Your task to perform on an android device: Add alienware aurora to the cart on walmart, then select checkout. Image 0: 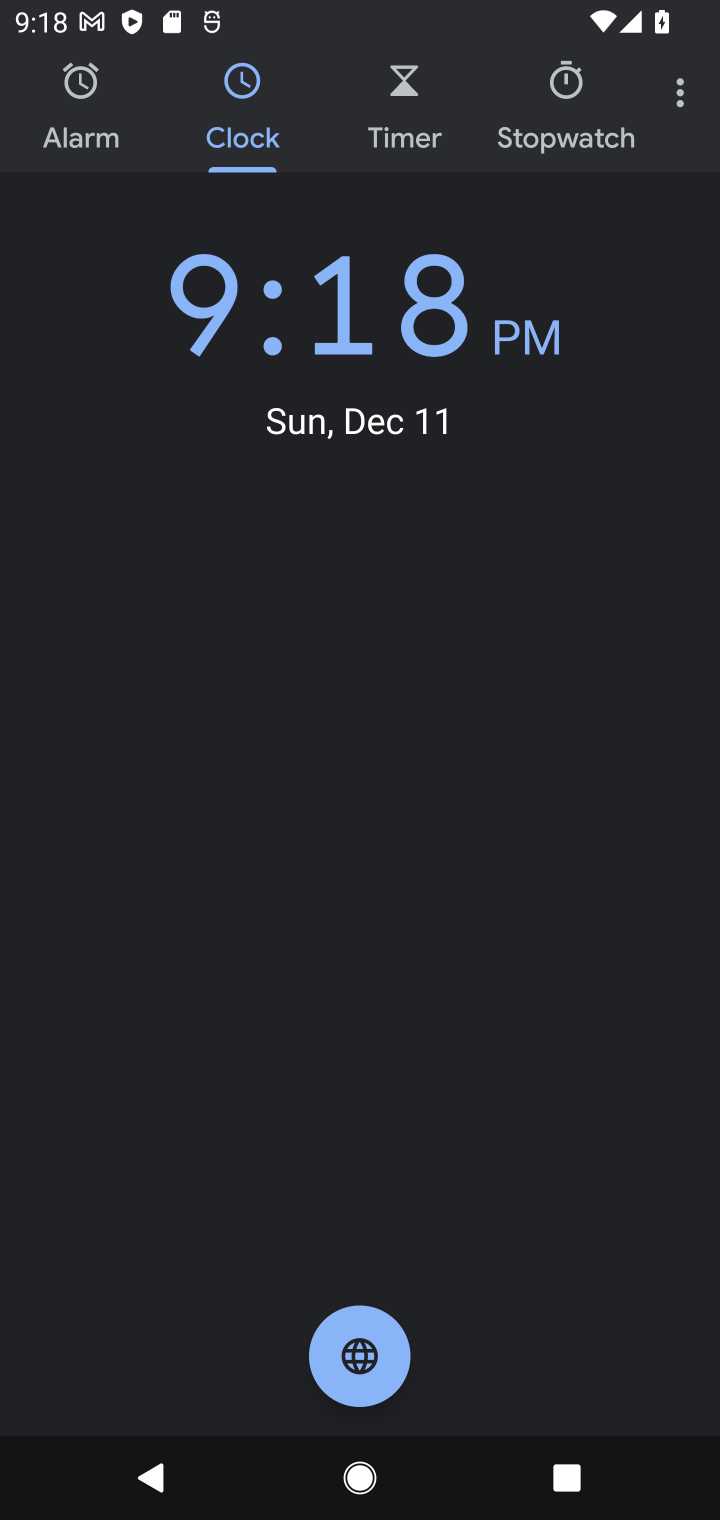
Step 0: press home button
Your task to perform on an android device: Add alienware aurora to the cart on walmart, then select checkout. Image 1: 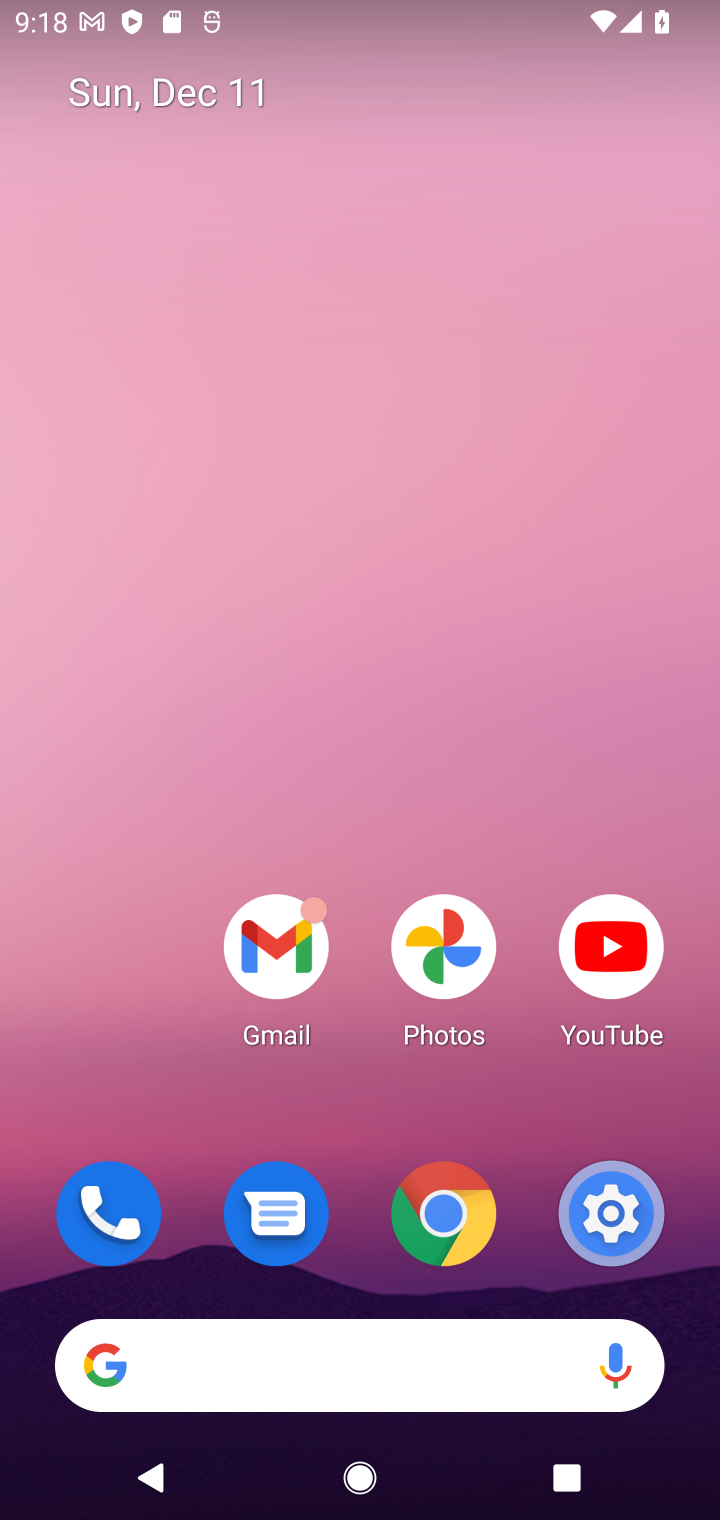
Step 1: click (333, 1371)
Your task to perform on an android device: Add alienware aurora to the cart on walmart, then select checkout. Image 2: 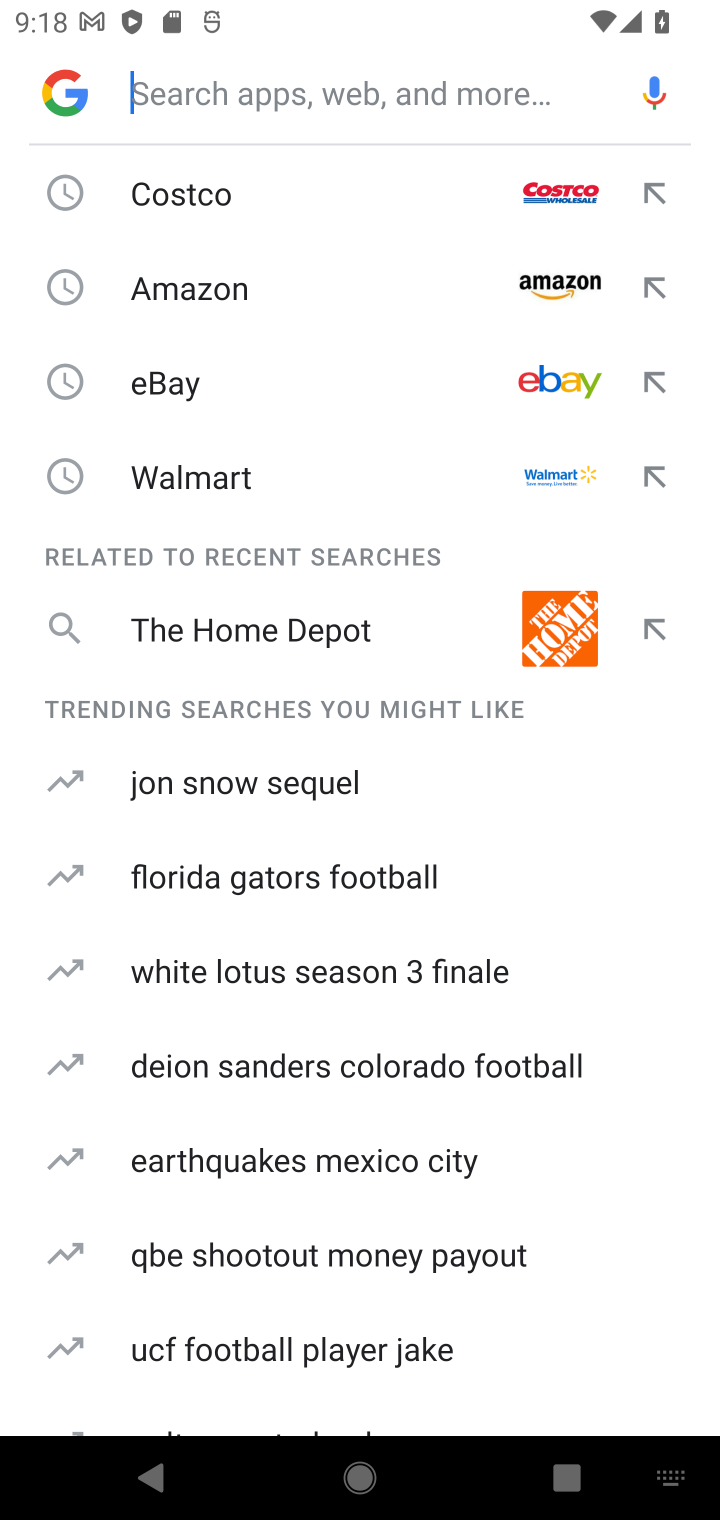
Step 2: type "walmart"
Your task to perform on an android device: Add alienware aurora to the cart on walmart, then select checkout. Image 3: 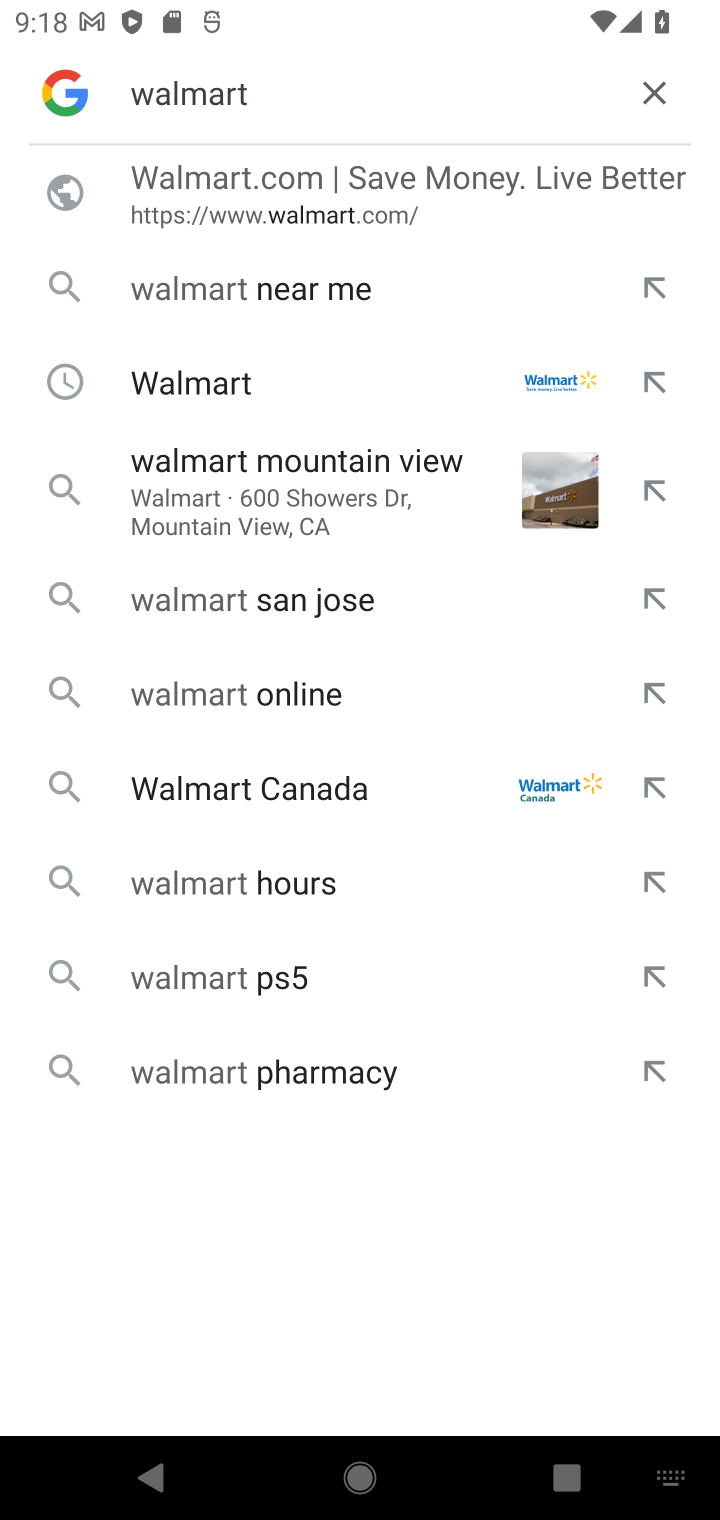
Step 3: click (350, 218)
Your task to perform on an android device: Add alienware aurora to the cart on walmart, then select checkout. Image 4: 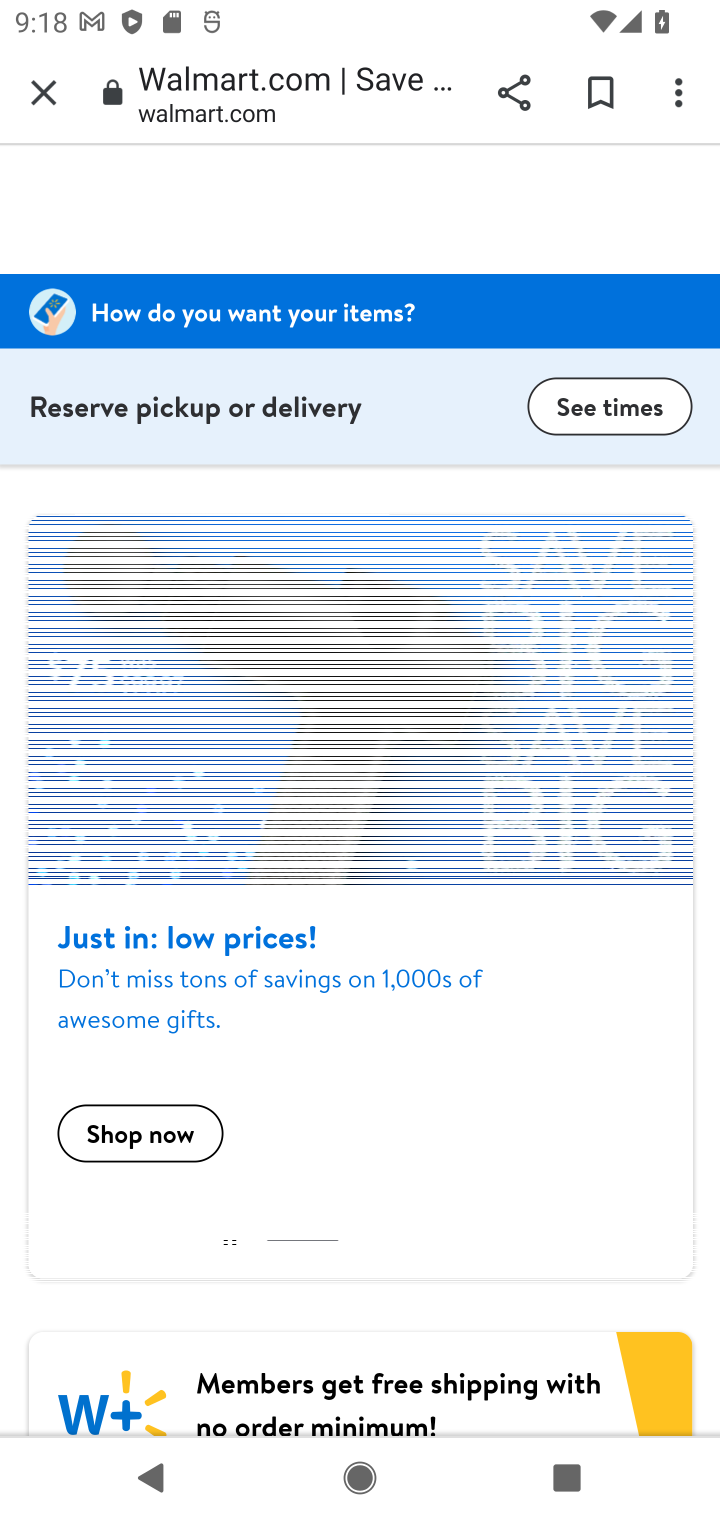
Step 4: click (330, 182)
Your task to perform on an android device: Add alienware aurora to the cart on walmart, then select checkout. Image 5: 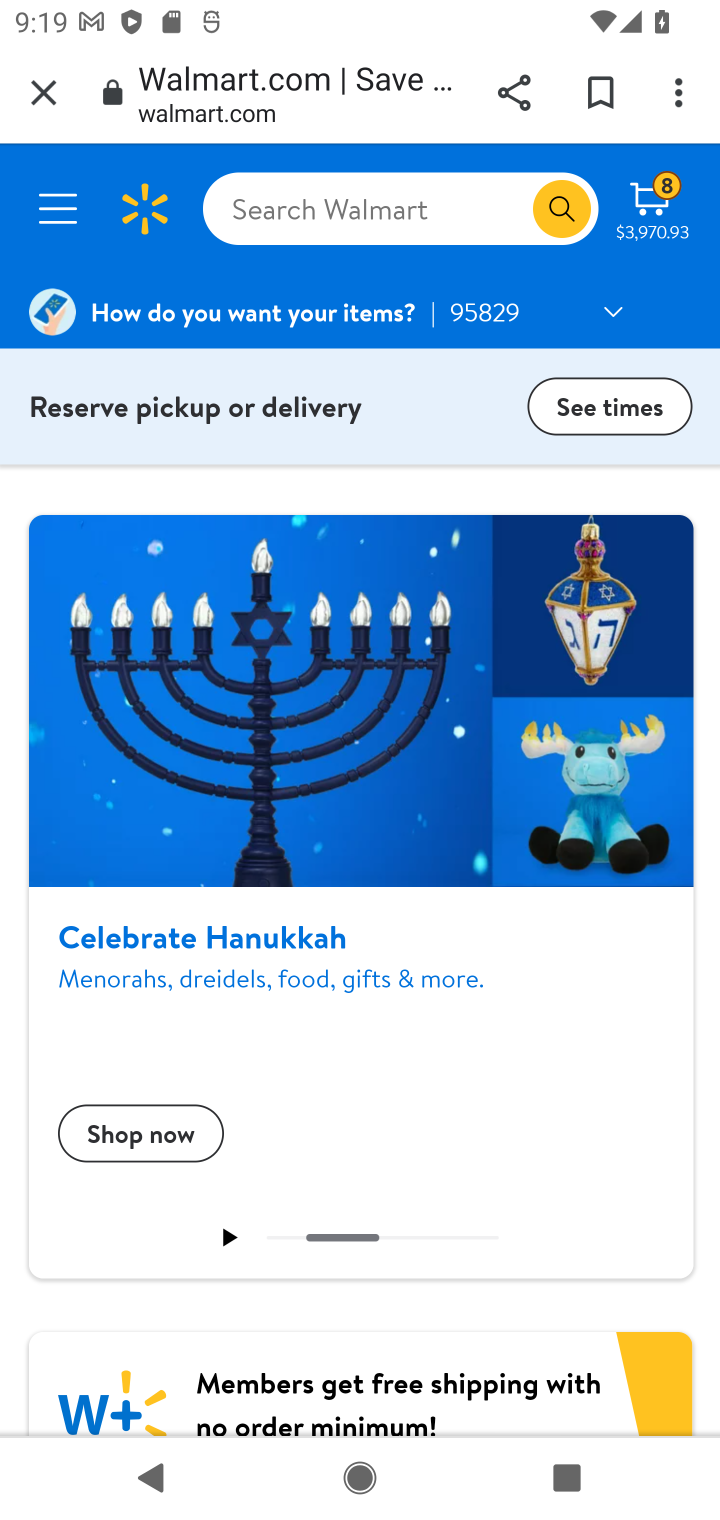
Step 5: type "alienware aurora"
Your task to perform on an android device: Add alienware aurora to the cart on walmart, then select checkout. Image 6: 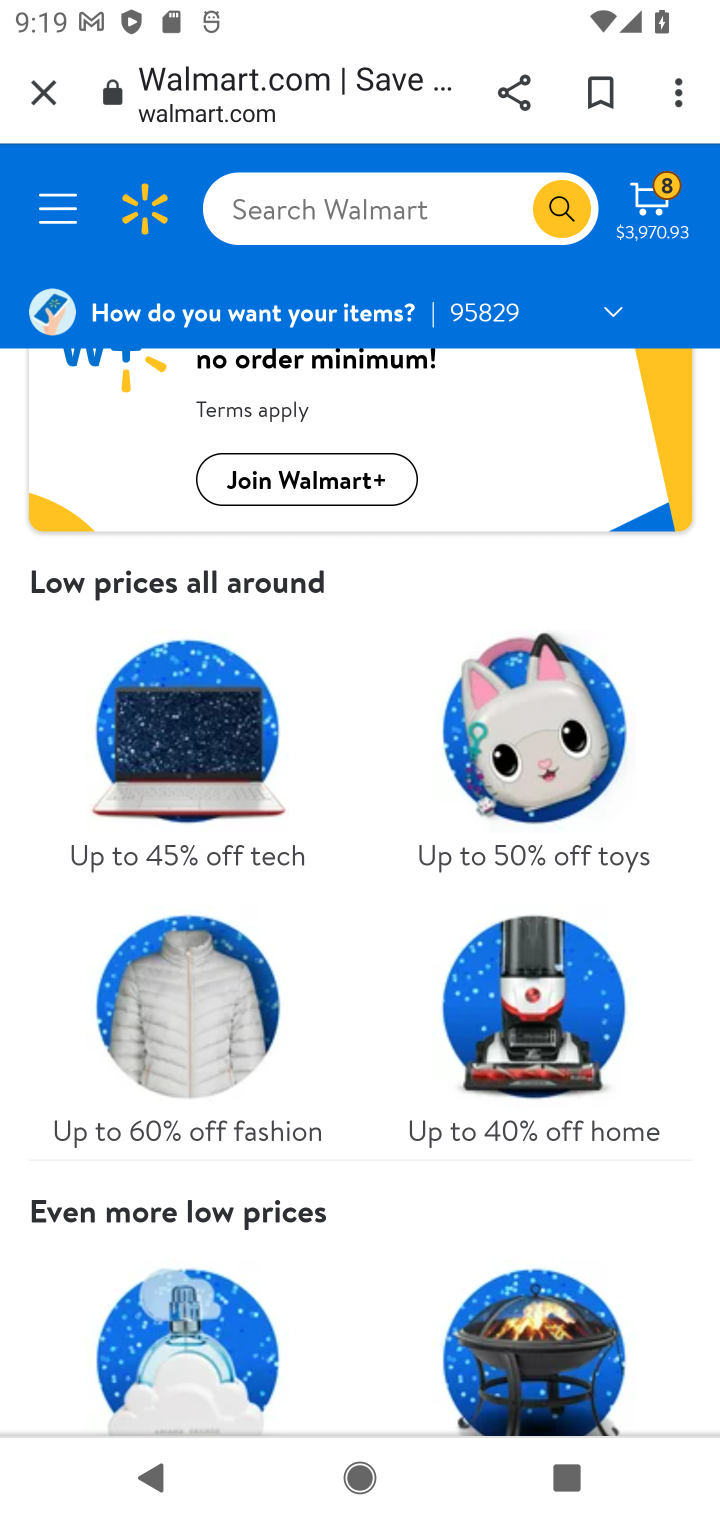
Step 6: click (406, 207)
Your task to perform on an android device: Add alienware aurora to the cart on walmart, then select checkout. Image 7: 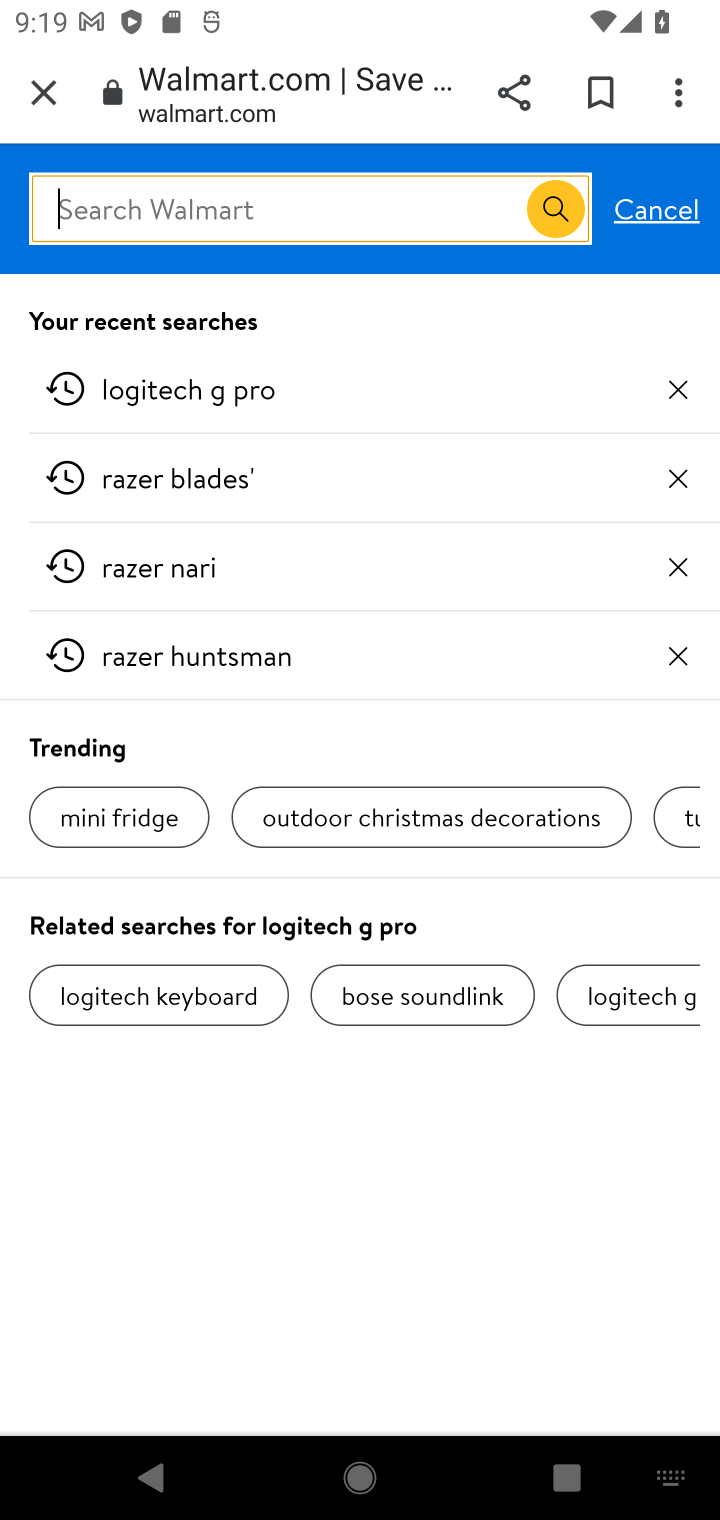
Step 7: click (406, 207)
Your task to perform on an android device: Add alienware aurora to the cart on walmart, then select checkout. Image 8: 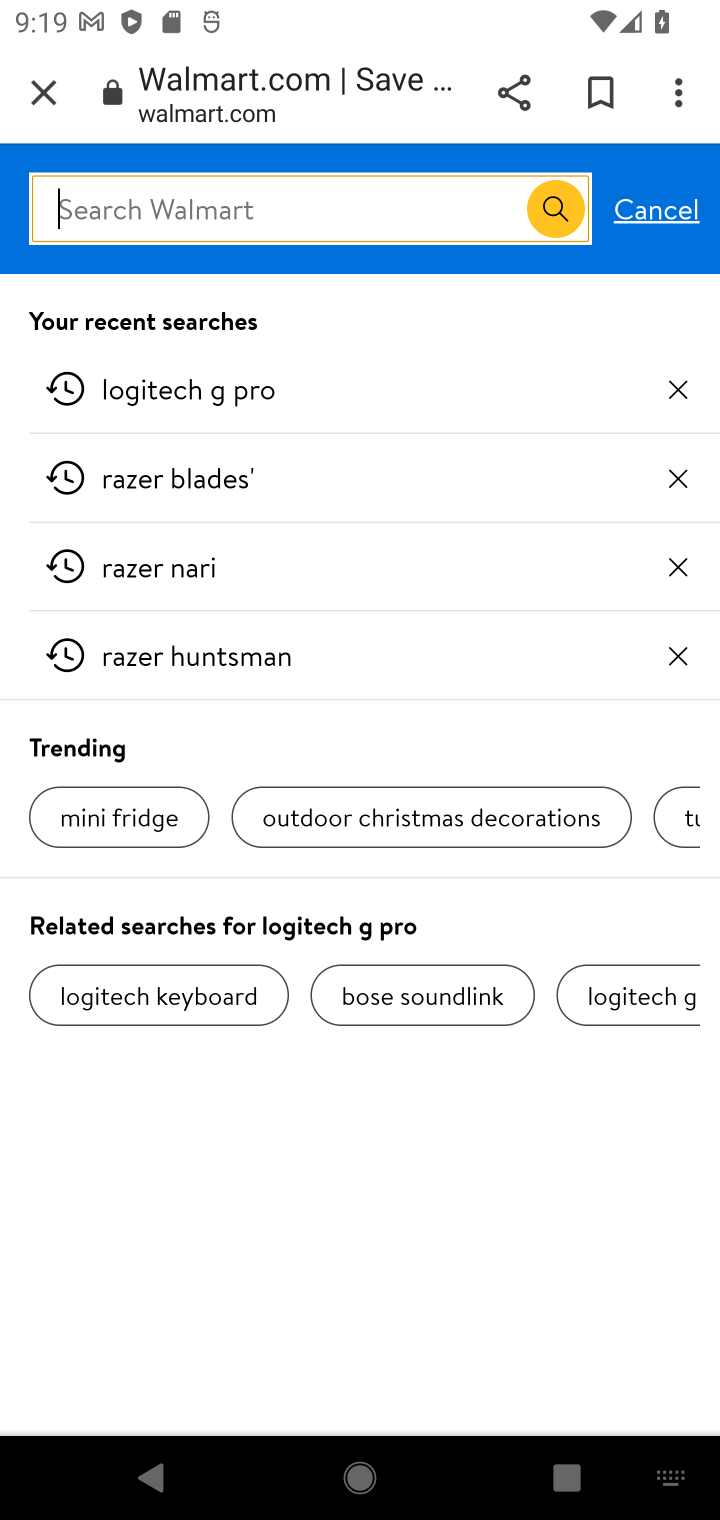
Step 8: type "alienware aurora"
Your task to perform on an android device: Add alienware aurora to the cart on walmart, then select checkout. Image 9: 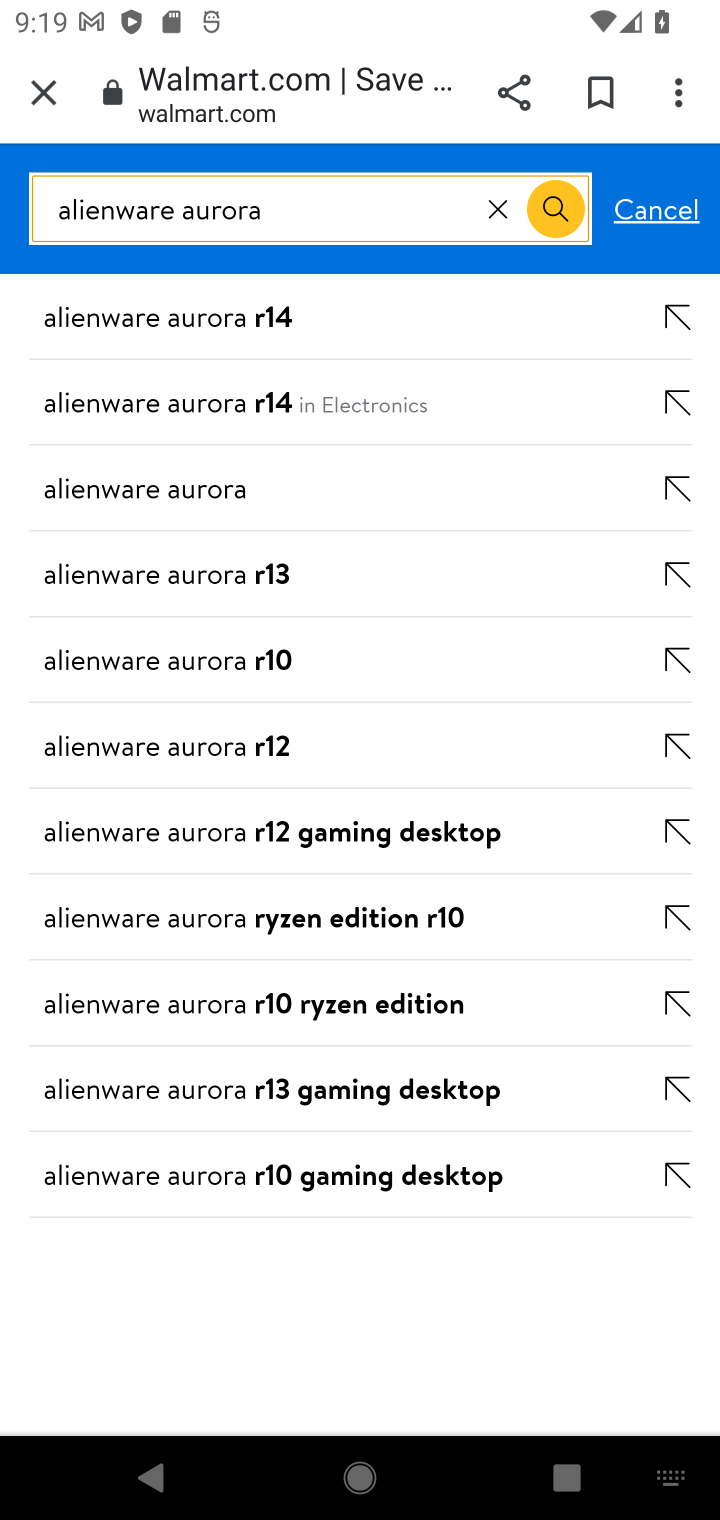
Step 9: click (259, 496)
Your task to perform on an android device: Add alienware aurora to the cart on walmart, then select checkout. Image 10: 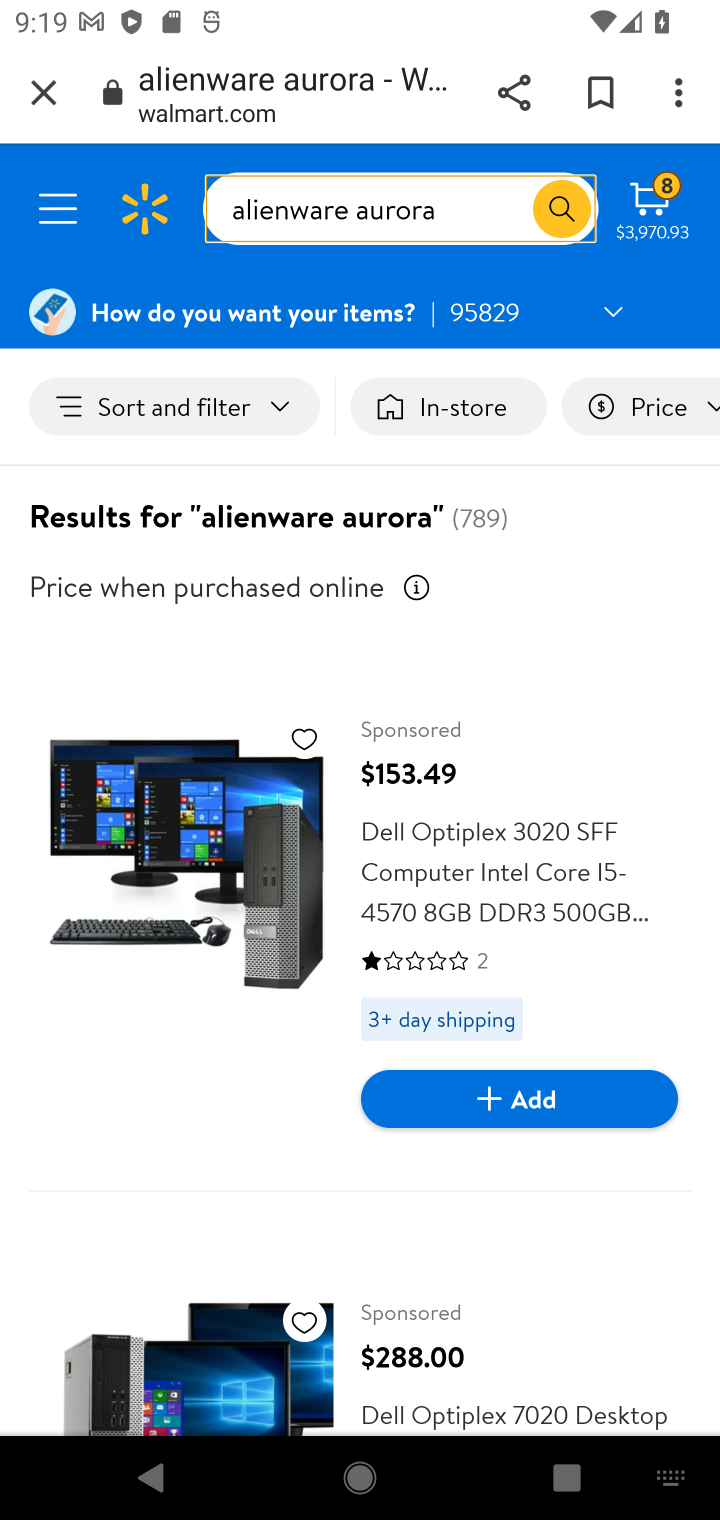
Step 10: click (534, 1124)
Your task to perform on an android device: Add alienware aurora to the cart on walmart, then select checkout. Image 11: 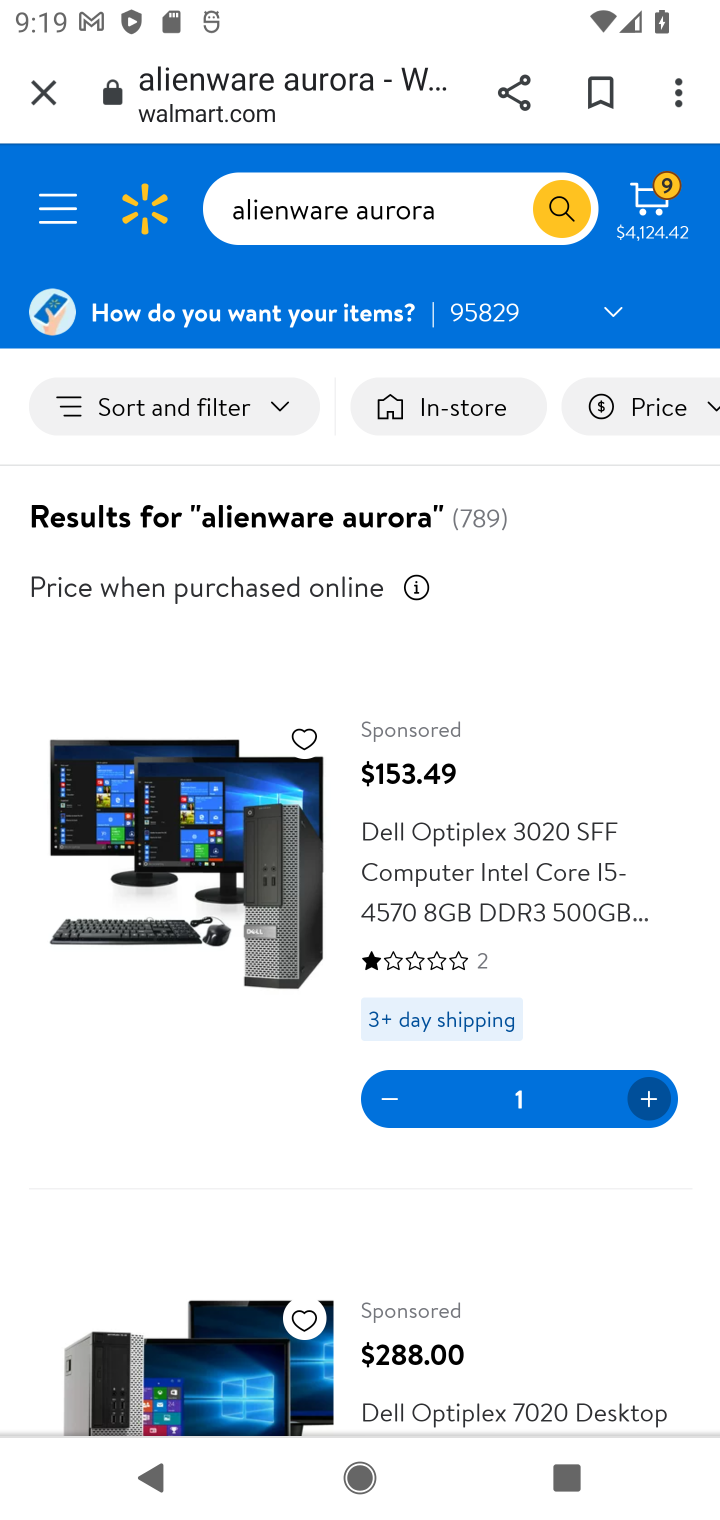
Step 11: task complete